Your task to perform on an android device: What is the speed of a plane? Image 0: 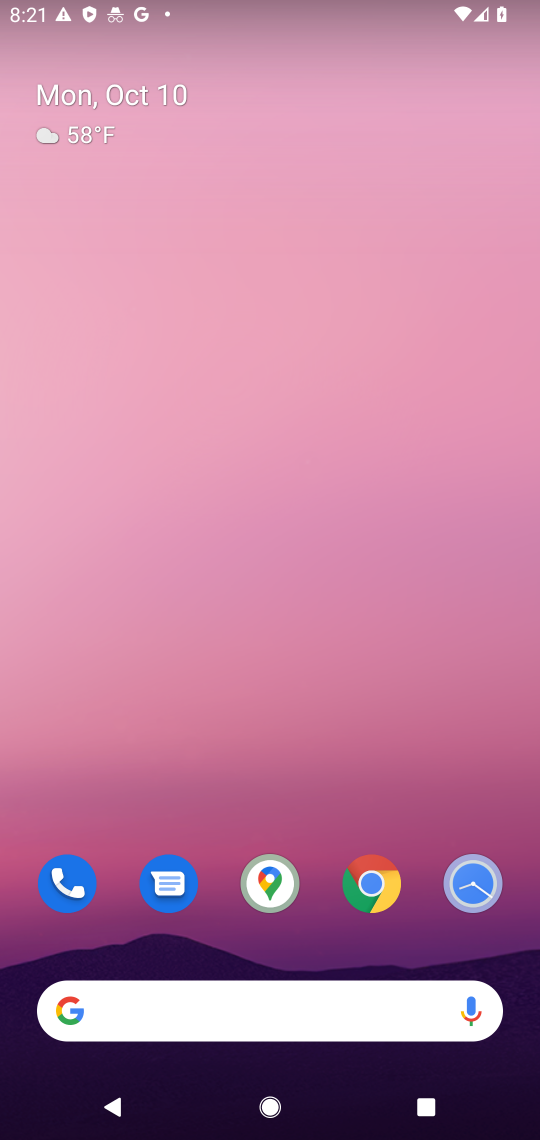
Step 0: drag from (301, 1024) to (386, 365)
Your task to perform on an android device: What is the speed of a plane? Image 1: 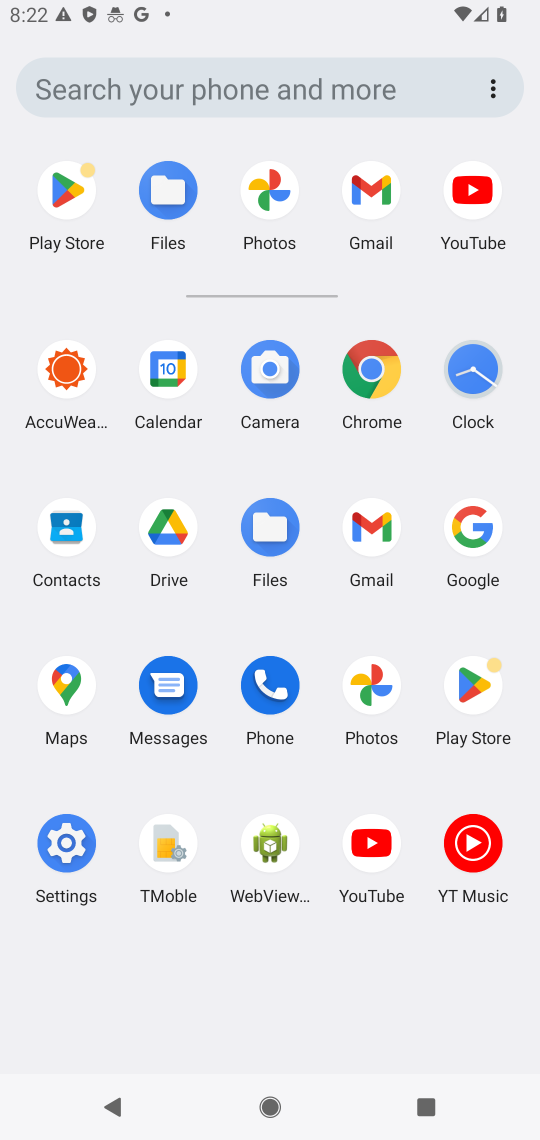
Step 1: click (478, 553)
Your task to perform on an android device: What is the speed of a plane? Image 2: 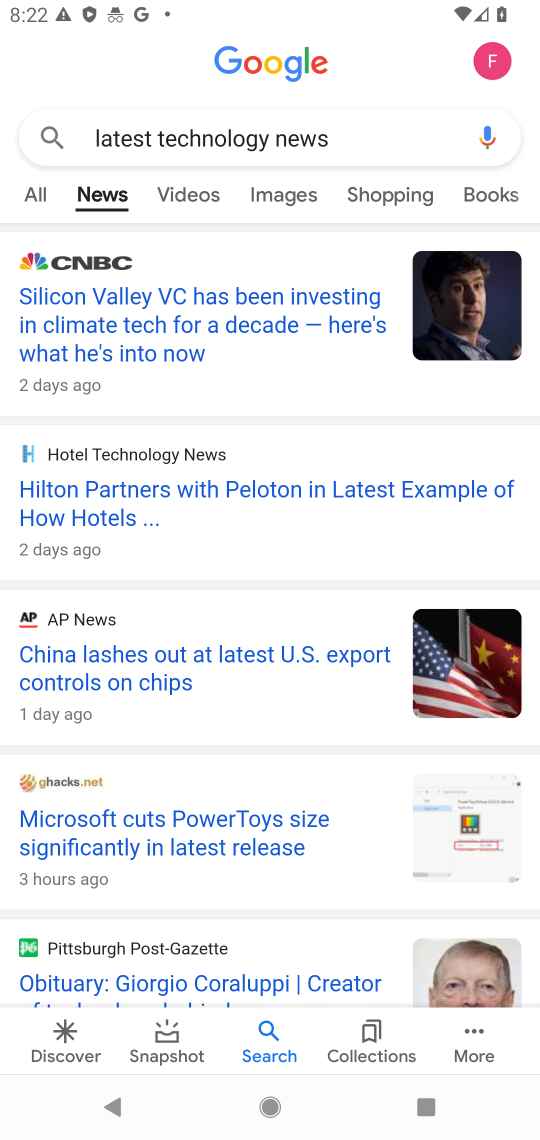
Step 2: click (388, 149)
Your task to perform on an android device: What is the speed of a plane? Image 3: 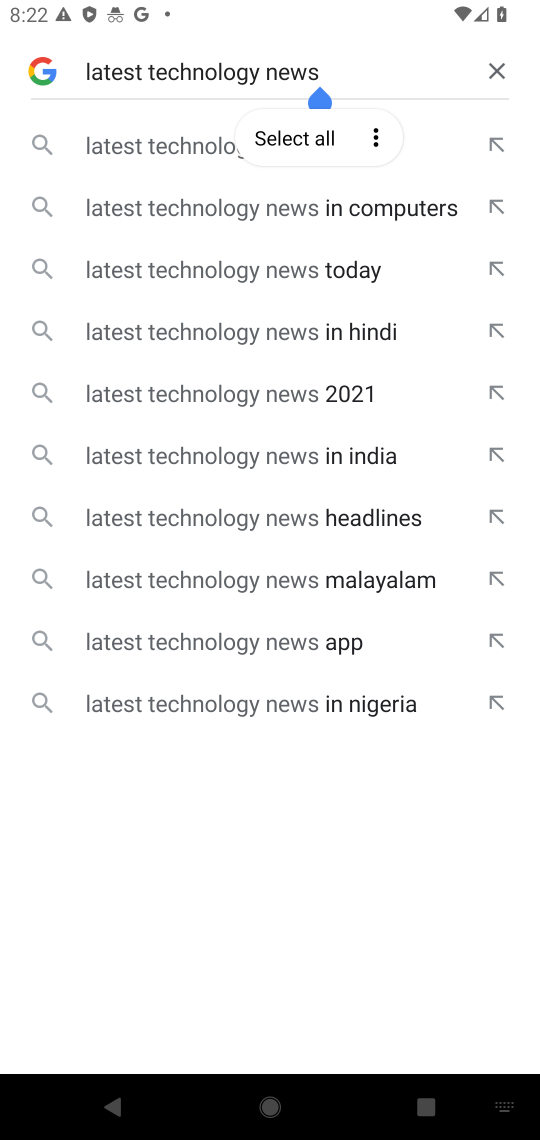
Step 3: click (501, 74)
Your task to perform on an android device: What is the speed of a plane? Image 4: 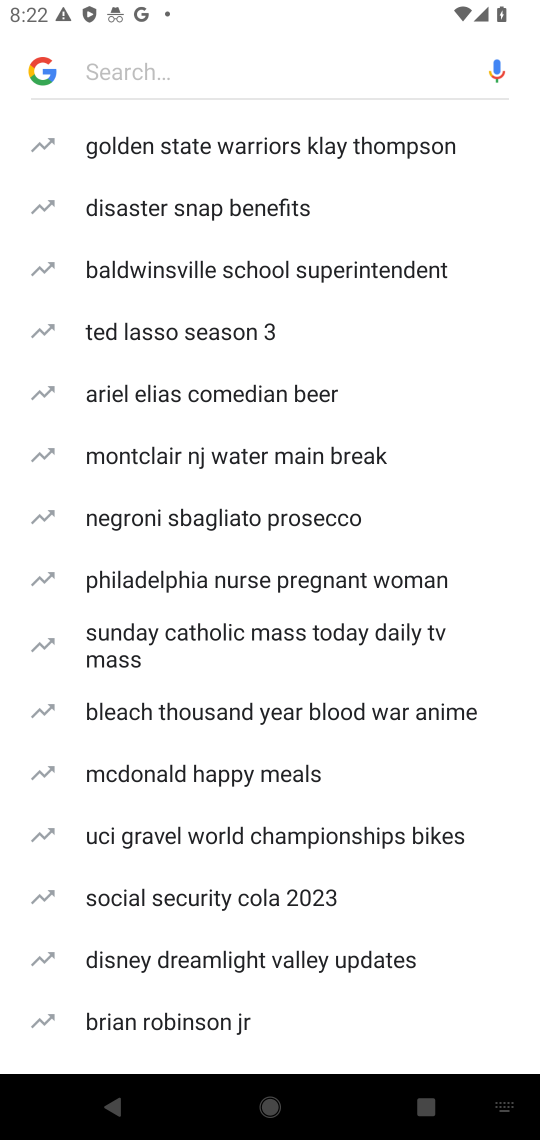
Step 4: type "speed of a plane"
Your task to perform on an android device: What is the speed of a plane? Image 5: 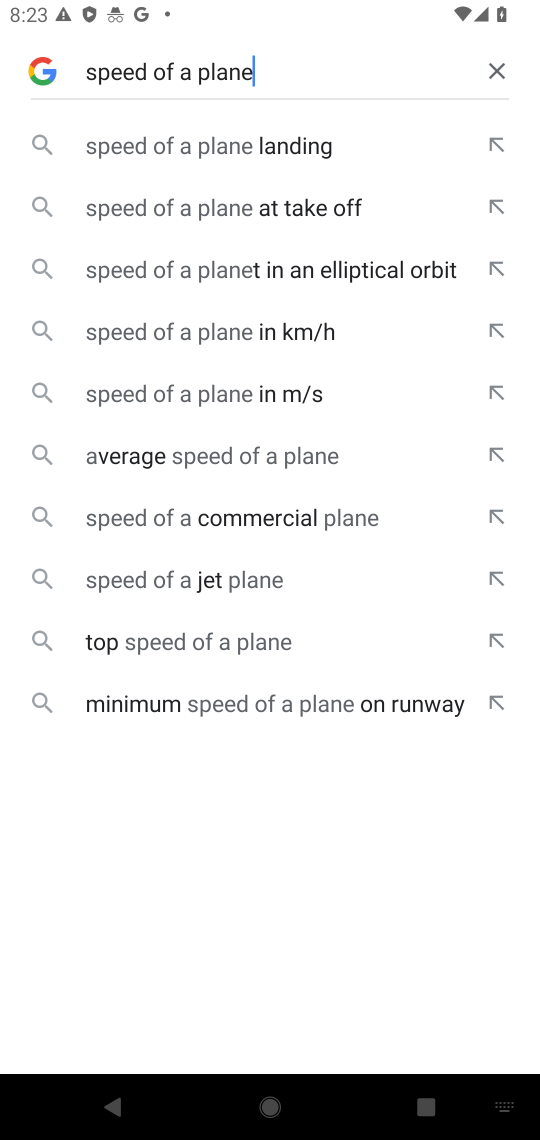
Step 5: click (362, 327)
Your task to perform on an android device: What is the speed of a plane? Image 6: 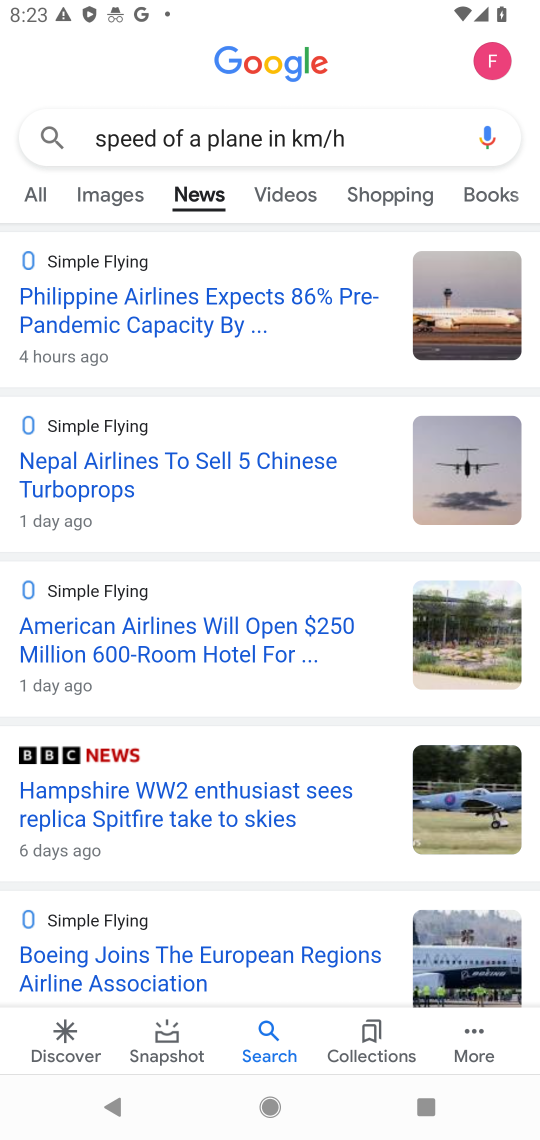
Step 6: click (35, 192)
Your task to perform on an android device: What is the speed of a plane? Image 7: 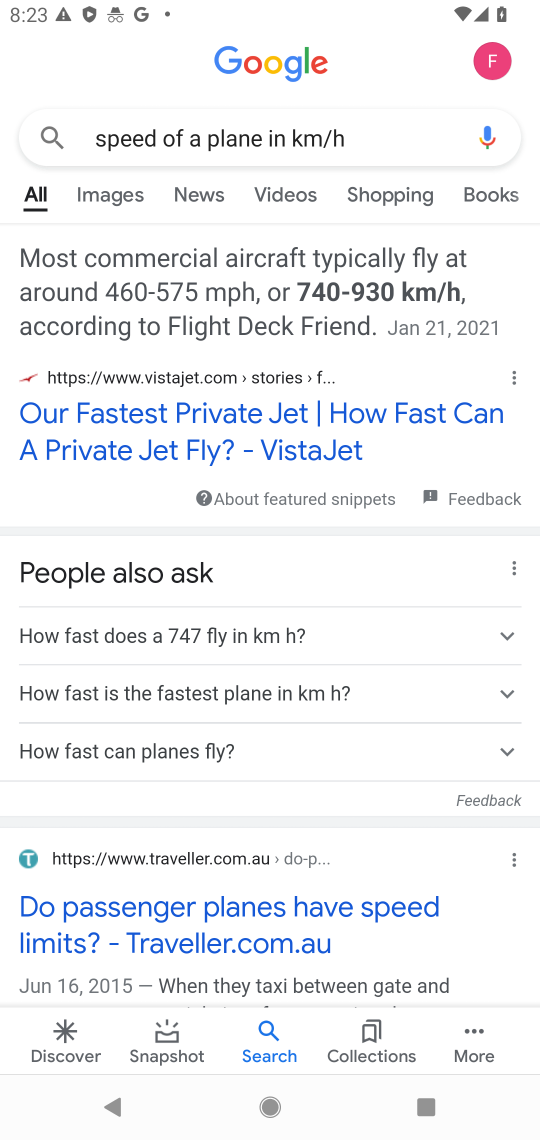
Step 7: task complete